Your task to perform on an android device: turn off sleep mode Image 0: 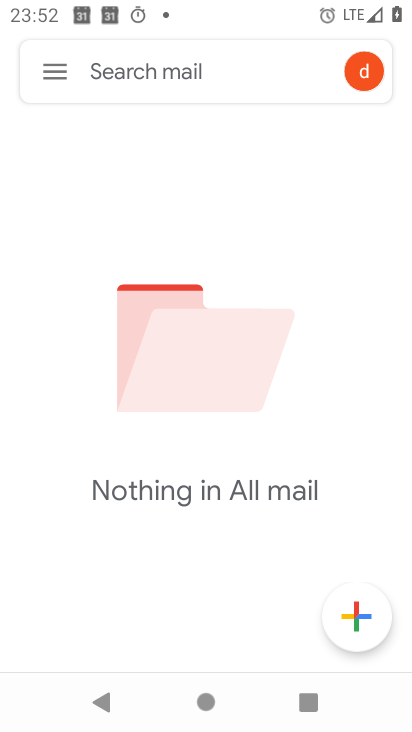
Step 0: press home button
Your task to perform on an android device: turn off sleep mode Image 1: 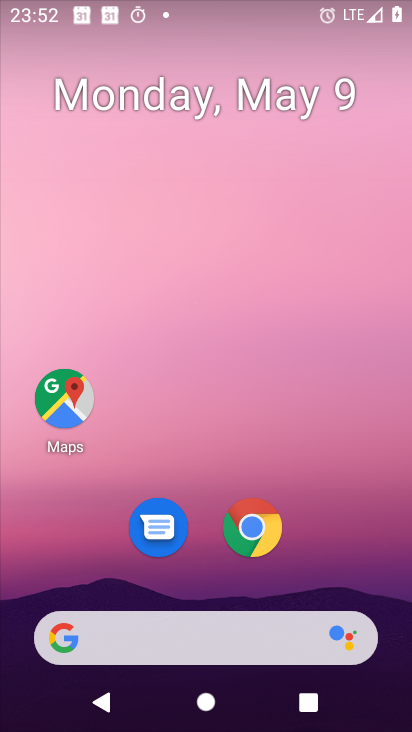
Step 1: drag from (216, 569) to (228, 97)
Your task to perform on an android device: turn off sleep mode Image 2: 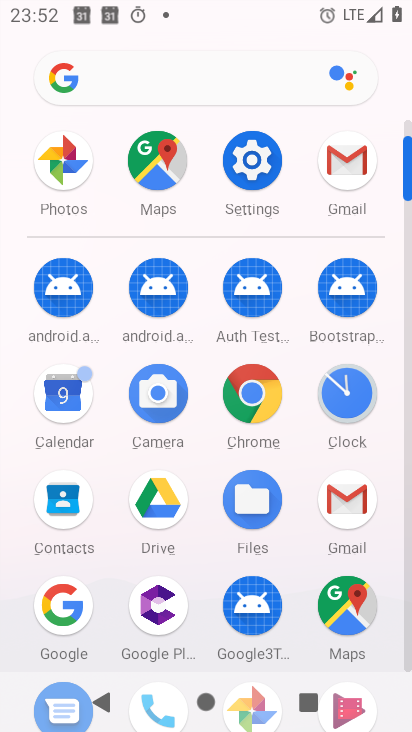
Step 2: click (253, 162)
Your task to perform on an android device: turn off sleep mode Image 3: 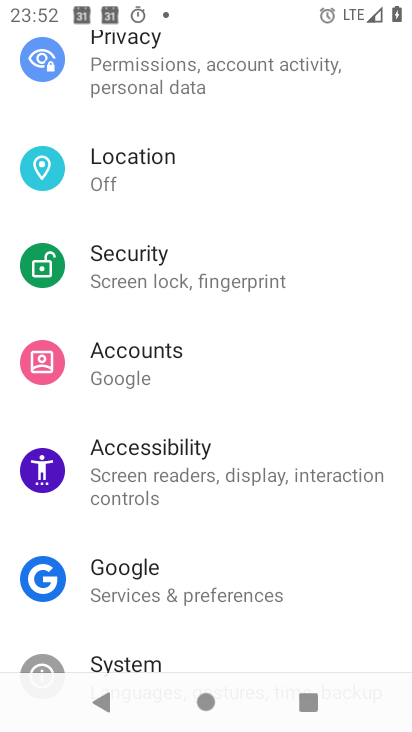
Step 3: drag from (156, 112) to (198, 502)
Your task to perform on an android device: turn off sleep mode Image 4: 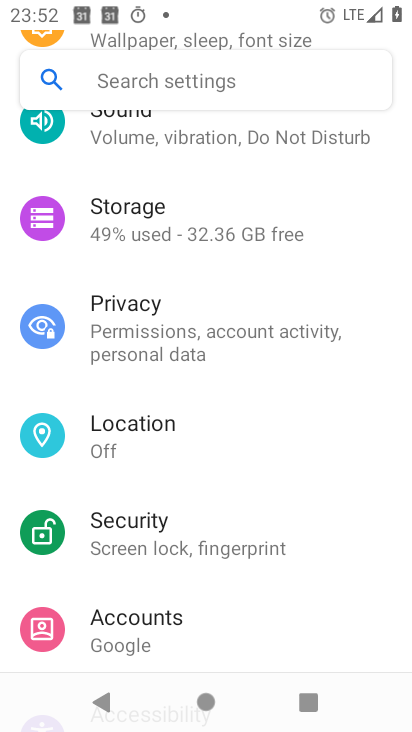
Step 4: drag from (145, 200) to (180, 573)
Your task to perform on an android device: turn off sleep mode Image 5: 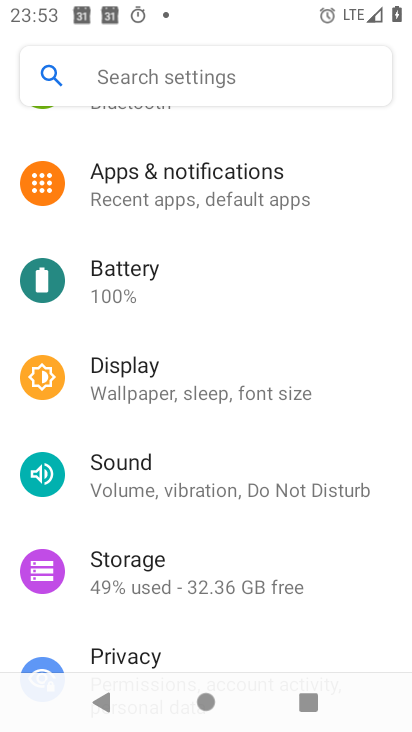
Step 5: click (200, 377)
Your task to perform on an android device: turn off sleep mode Image 6: 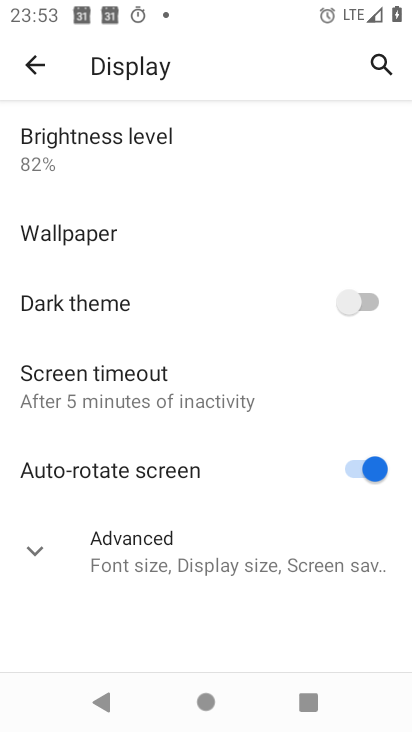
Step 6: click (122, 392)
Your task to perform on an android device: turn off sleep mode Image 7: 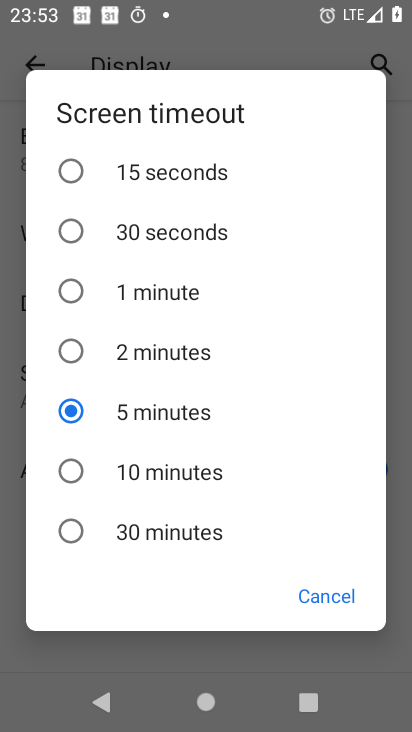
Step 7: task complete